Your task to perform on an android device: remove spam from my inbox in the gmail app Image 0: 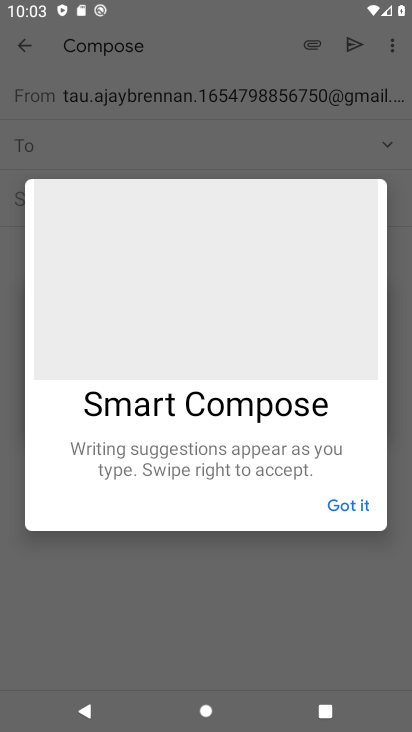
Step 0: press home button
Your task to perform on an android device: remove spam from my inbox in the gmail app Image 1: 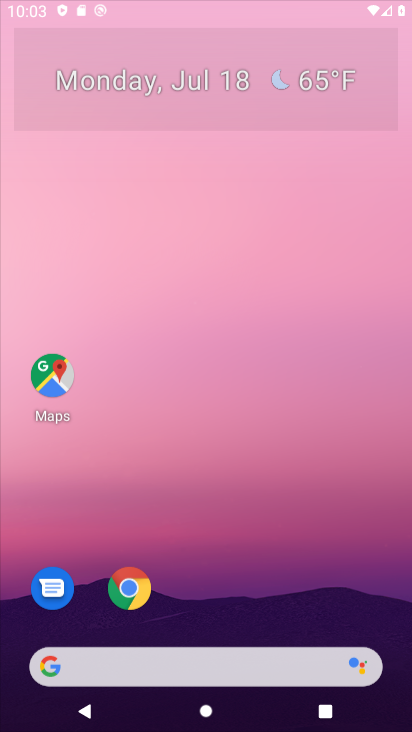
Step 1: press home button
Your task to perform on an android device: remove spam from my inbox in the gmail app Image 2: 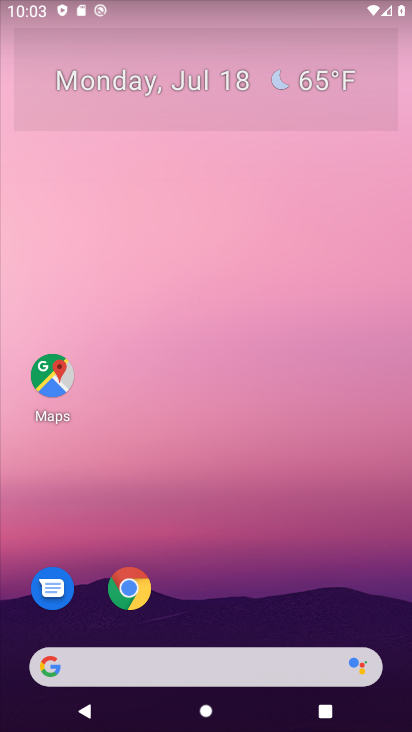
Step 2: click (280, 153)
Your task to perform on an android device: remove spam from my inbox in the gmail app Image 3: 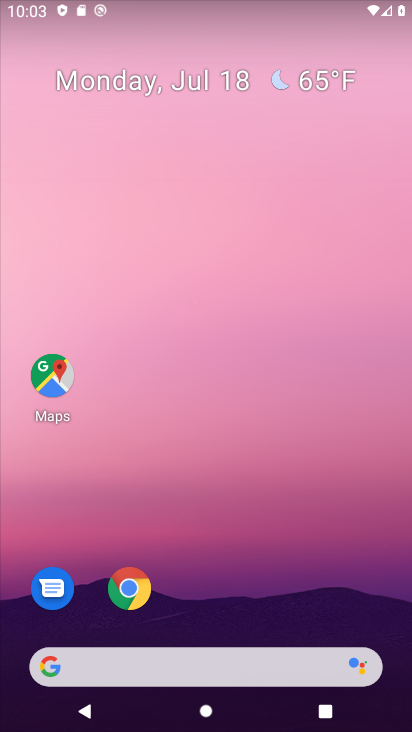
Step 3: drag from (237, 614) to (209, 60)
Your task to perform on an android device: remove spam from my inbox in the gmail app Image 4: 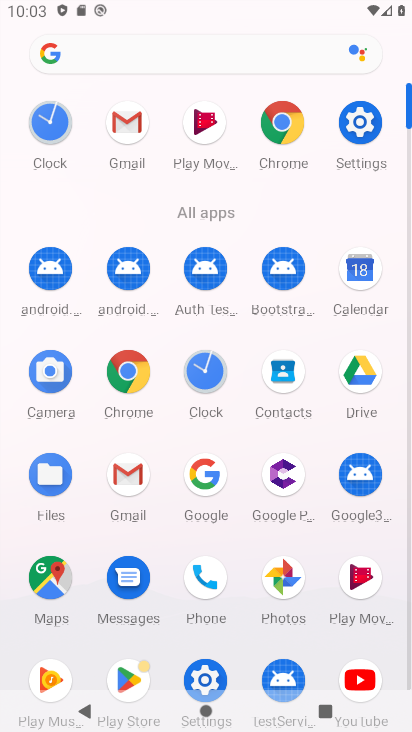
Step 4: click (130, 117)
Your task to perform on an android device: remove spam from my inbox in the gmail app Image 5: 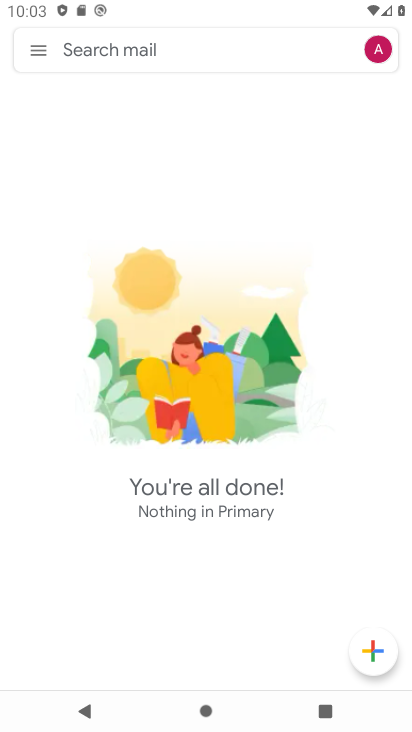
Step 5: click (29, 52)
Your task to perform on an android device: remove spam from my inbox in the gmail app Image 6: 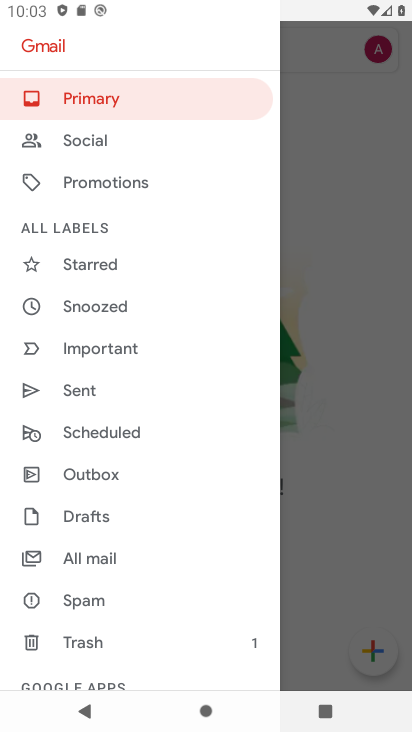
Step 6: click (83, 605)
Your task to perform on an android device: remove spam from my inbox in the gmail app Image 7: 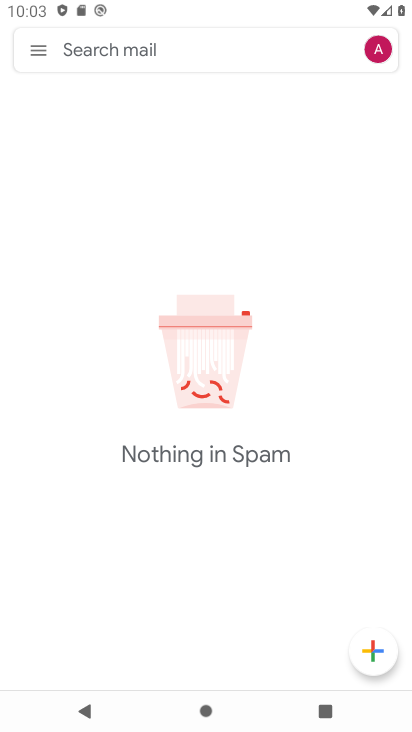
Step 7: click (45, 48)
Your task to perform on an android device: remove spam from my inbox in the gmail app Image 8: 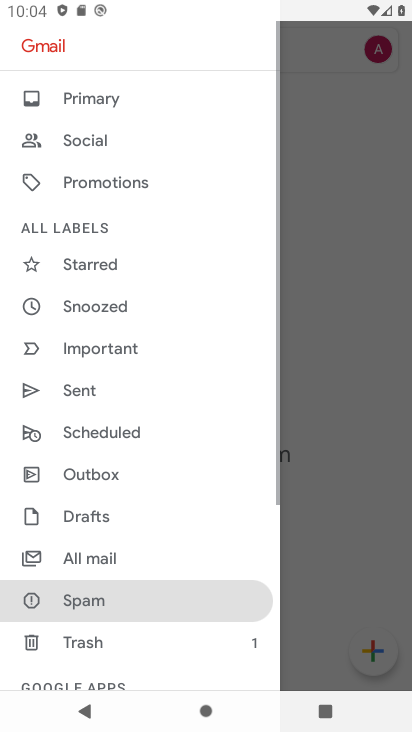
Step 8: task complete